Your task to perform on an android device: turn off location Image 0: 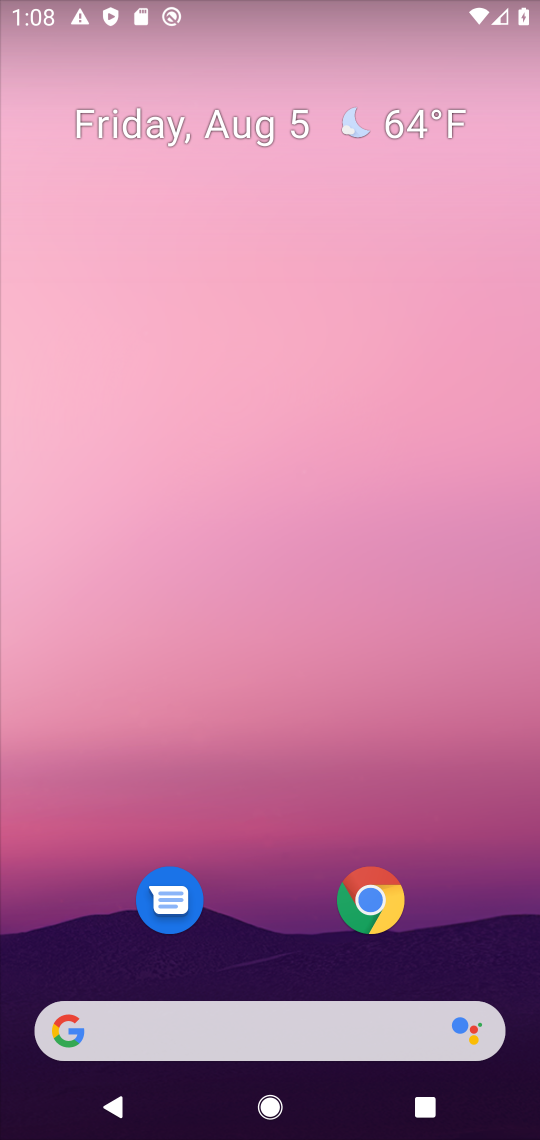
Step 0: press home button
Your task to perform on an android device: turn off location Image 1: 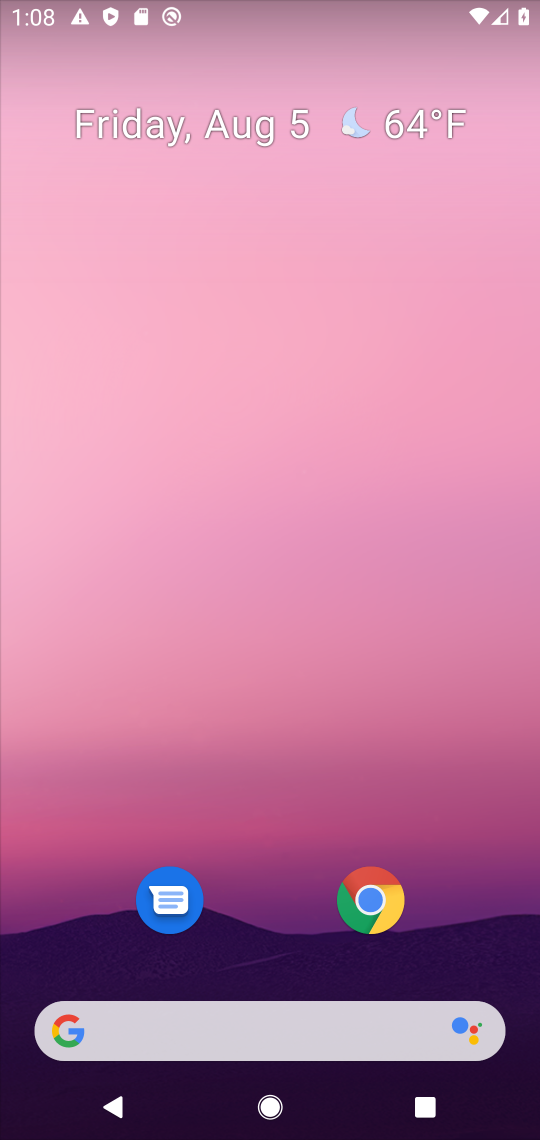
Step 1: drag from (286, 971) to (292, 280)
Your task to perform on an android device: turn off location Image 2: 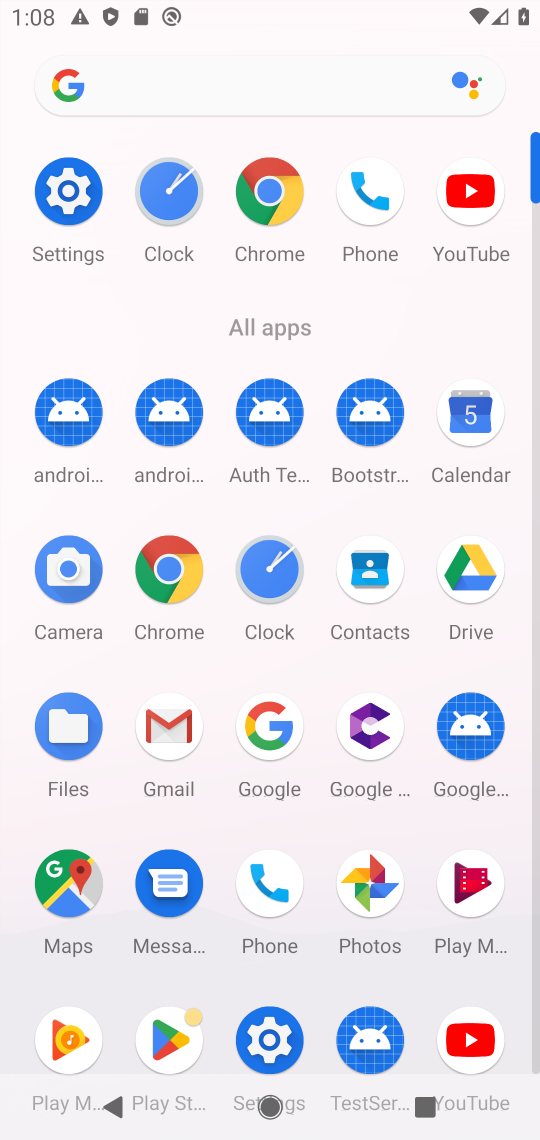
Step 2: click (64, 178)
Your task to perform on an android device: turn off location Image 3: 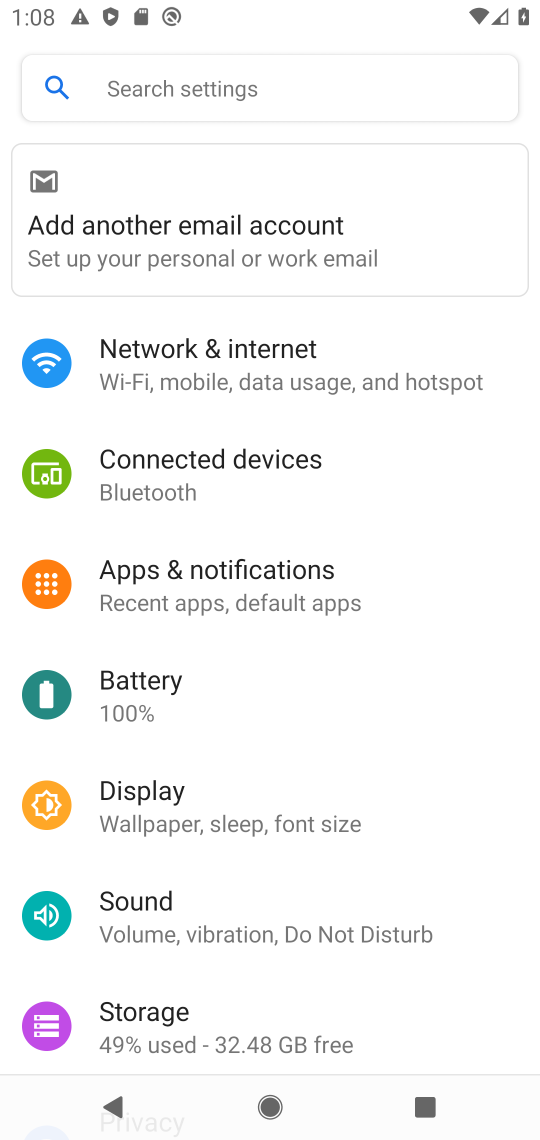
Step 3: drag from (272, 944) to (299, 185)
Your task to perform on an android device: turn off location Image 4: 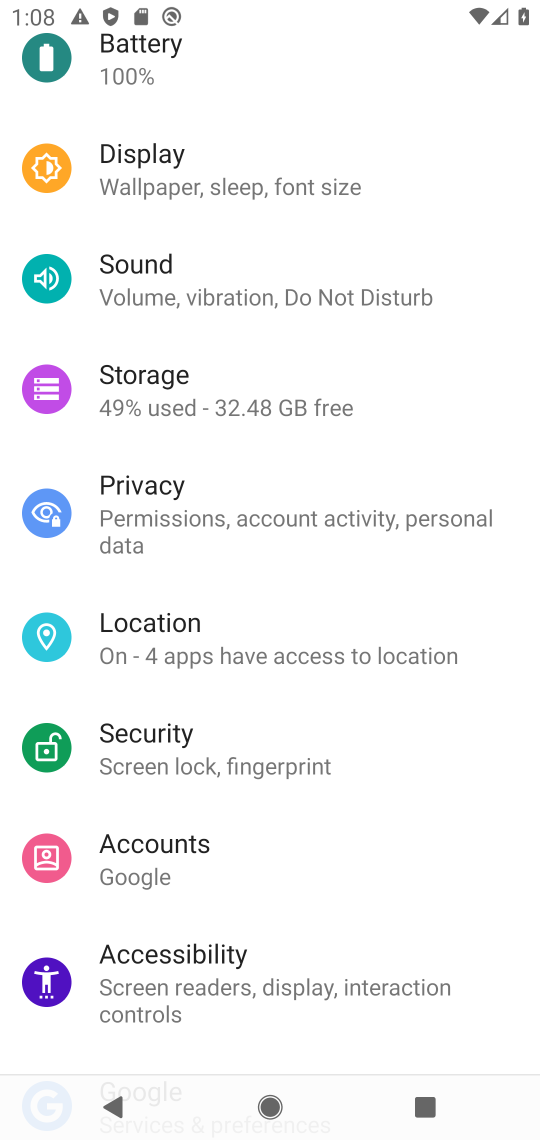
Step 4: click (227, 617)
Your task to perform on an android device: turn off location Image 5: 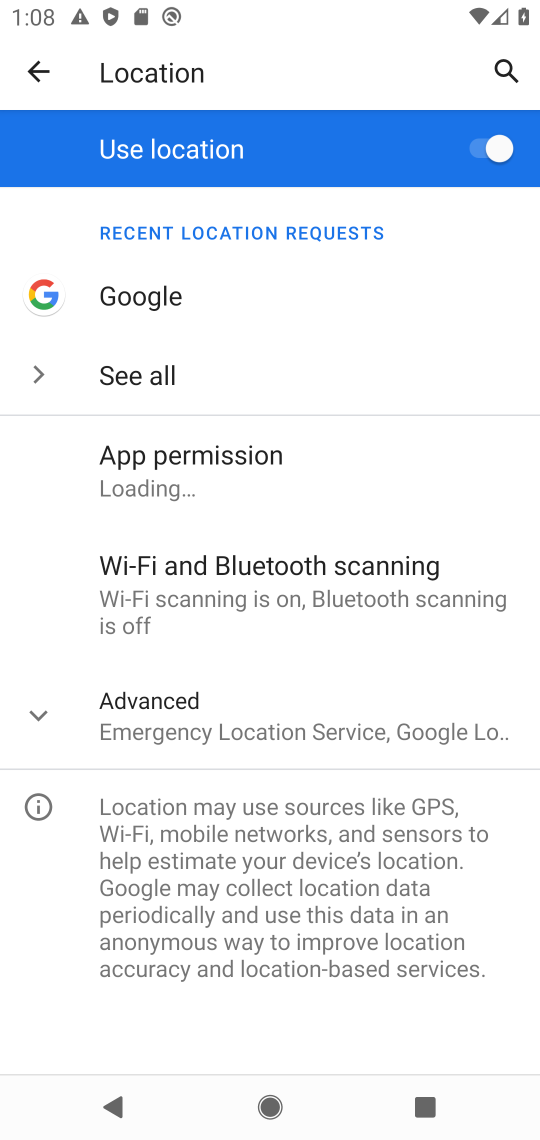
Step 5: click (477, 144)
Your task to perform on an android device: turn off location Image 6: 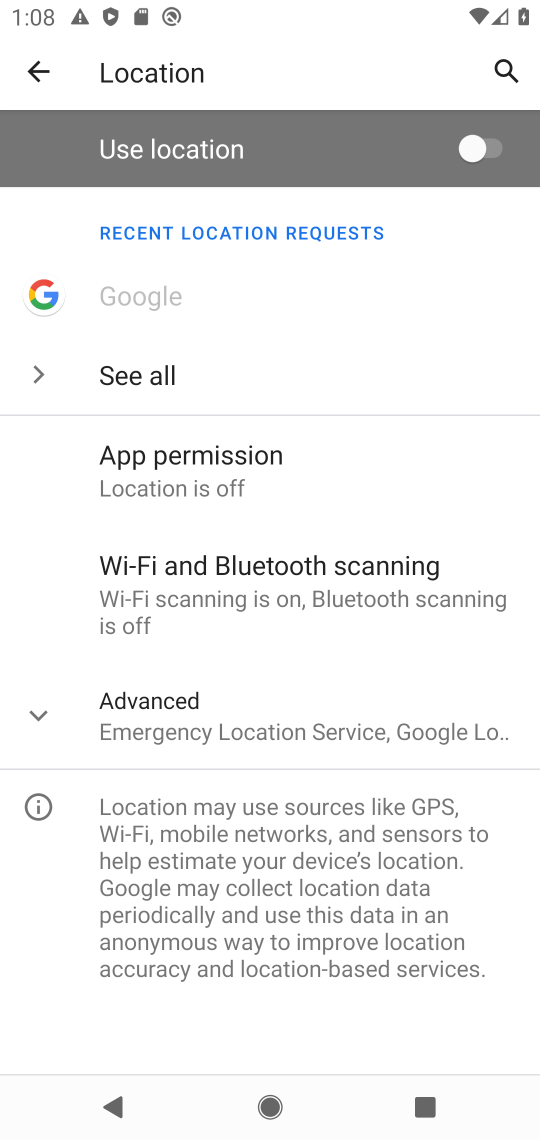
Step 6: task complete